Your task to perform on an android device: find snoozed emails in the gmail app Image 0: 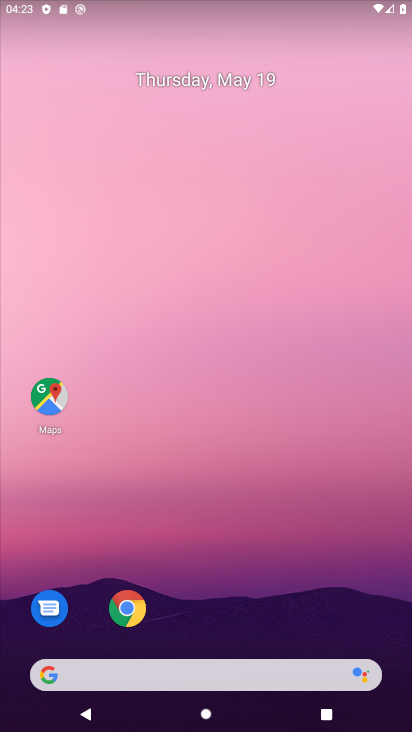
Step 0: drag from (224, 597) to (131, 26)
Your task to perform on an android device: find snoozed emails in the gmail app Image 1: 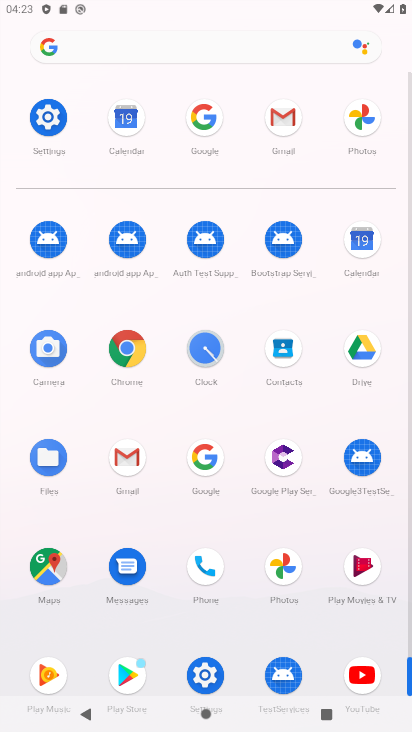
Step 1: click (280, 115)
Your task to perform on an android device: find snoozed emails in the gmail app Image 2: 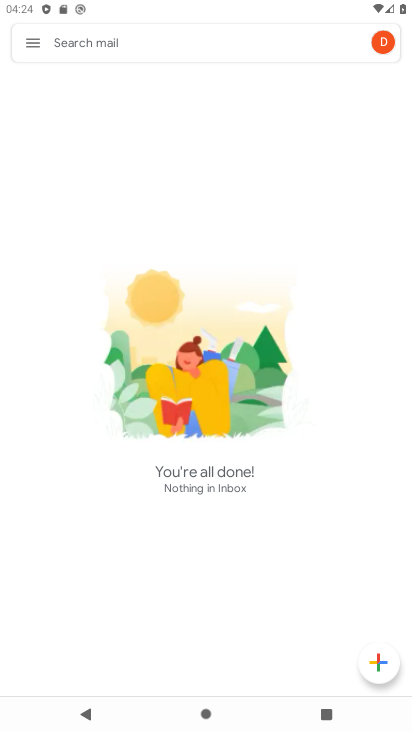
Step 2: click (31, 39)
Your task to perform on an android device: find snoozed emails in the gmail app Image 3: 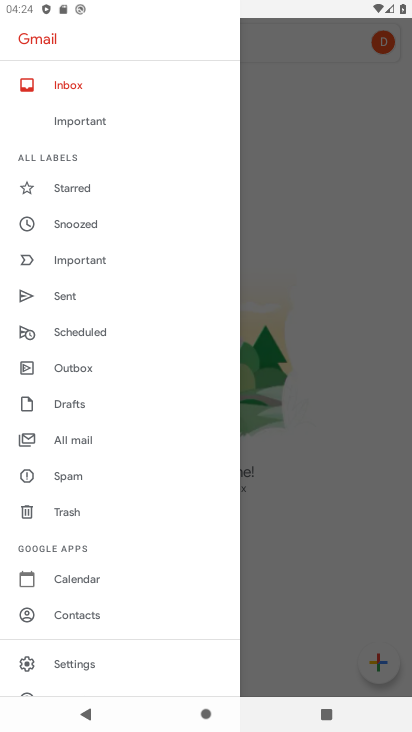
Step 3: click (68, 224)
Your task to perform on an android device: find snoozed emails in the gmail app Image 4: 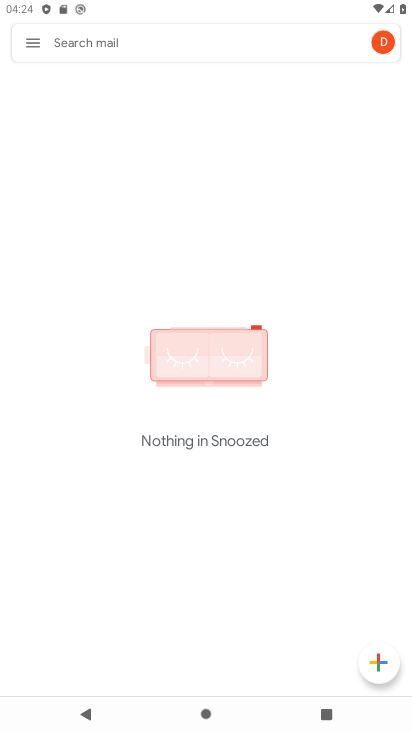
Step 4: task complete